Your task to perform on an android device: change your default location settings in chrome Image 0: 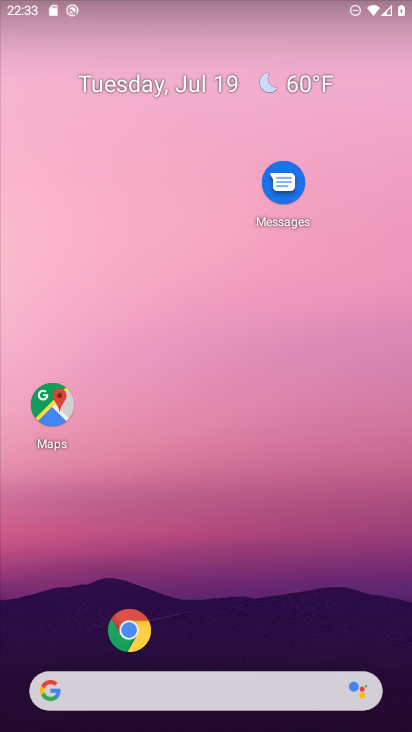
Step 0: drag from (121, 447) to (179, 164)
Your task to perform on an android device: change your default location settings in chrome Image 1: 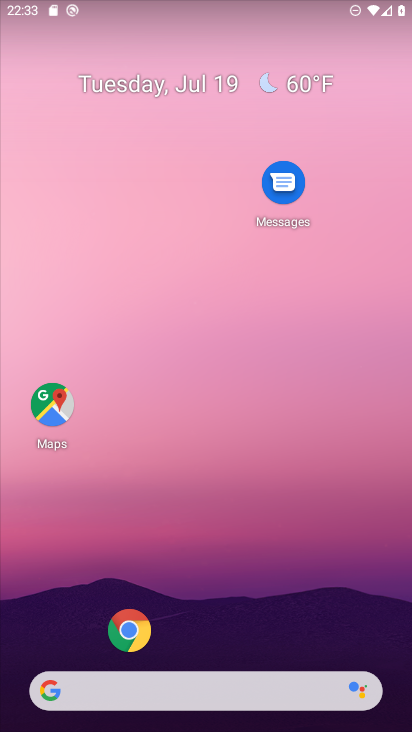
Step 1: click (125, 637)
Your task to perform on an android device: change your default location settings in chrome Image 2: 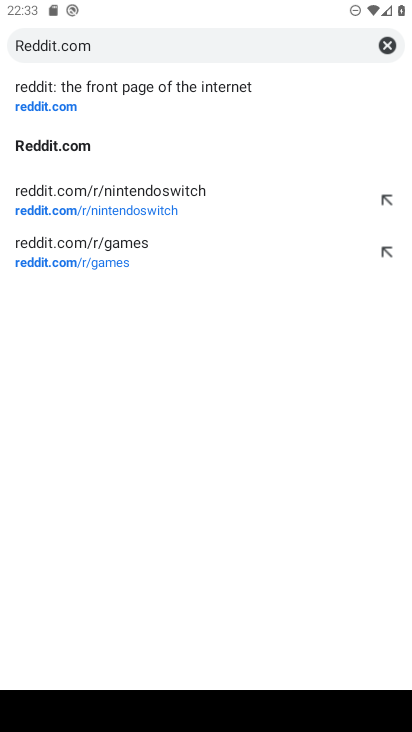
Step 2: click (391, 42)
Your task to perform on an android device: change your default location settings in chrome Image 3: 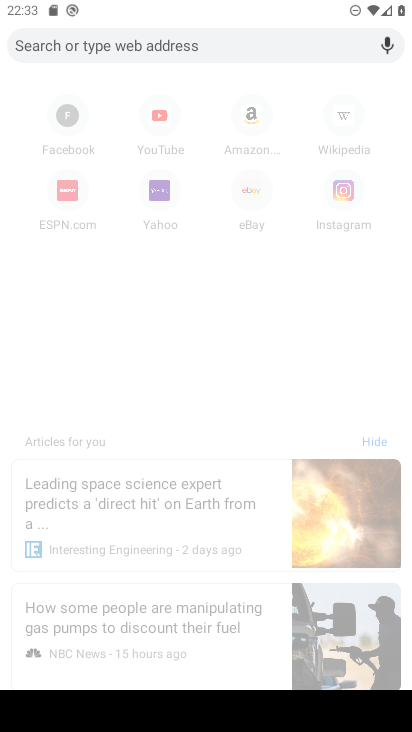
Step 3: click (211, 418)
Your task to perform on an android device: change your default location settings in chrome Image 4: 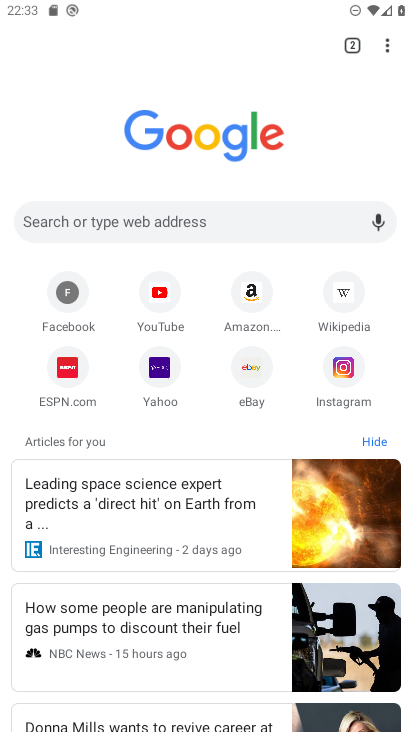
Step 4: click (389, 46)
Your task to perform on an android device: change your default location settings in chrome Image 5: 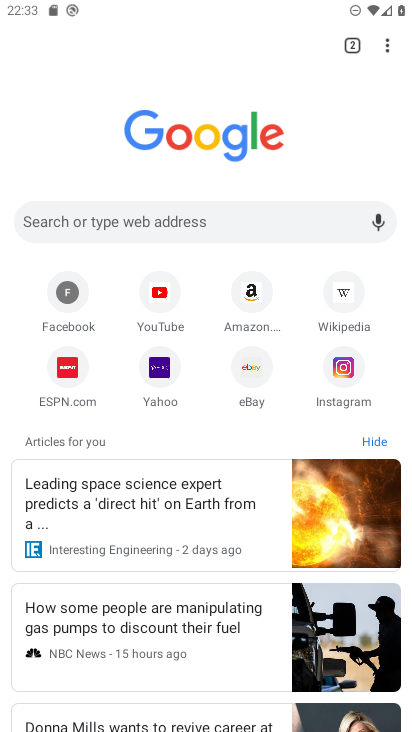
Step 5: click (390, 47)
Your task to perform on an android device: change your default location settings in chrome Image 6: 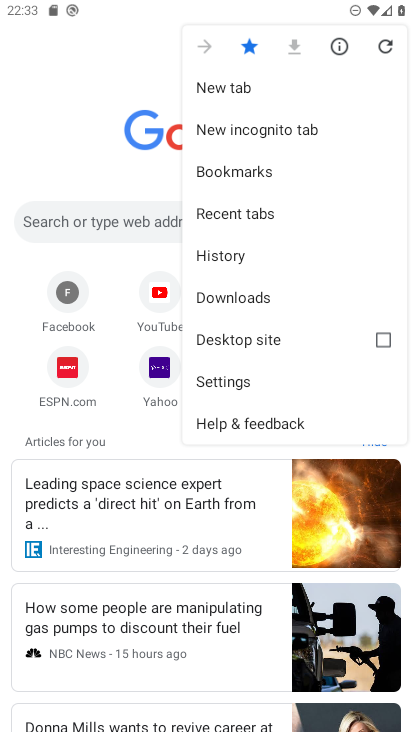
Step 6: click (224, 378)
Your task to perform on an android device: change your default location settings in chrome Image 7: 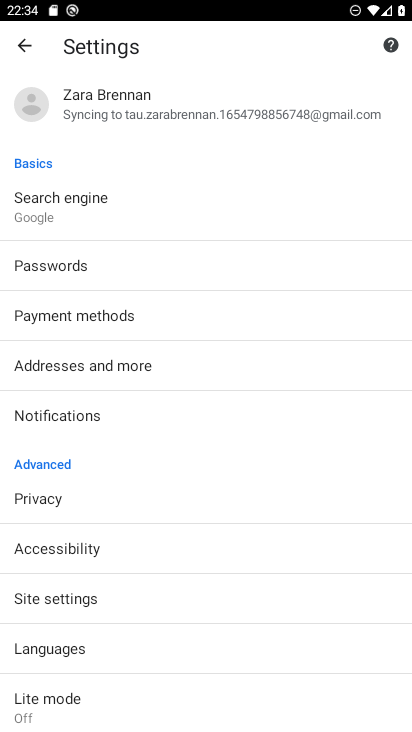
Step 7: click (41, 596)
Your task to perform on an android device: change your default location settings in chrome Image 8: 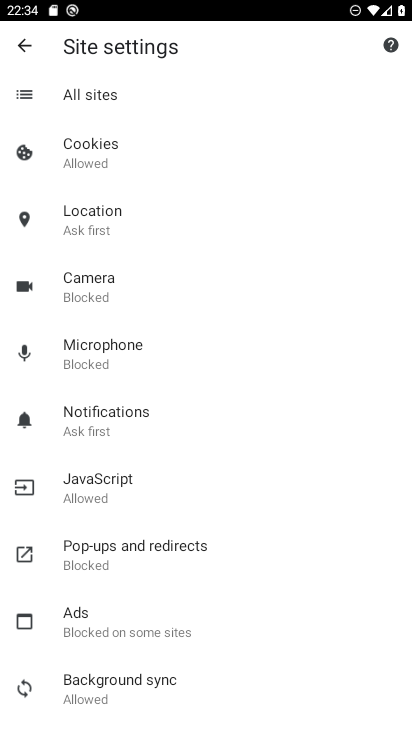
Step 8: click (100, 212)
Your task to perform on an android device: change your default location settings in chrome Image 9: 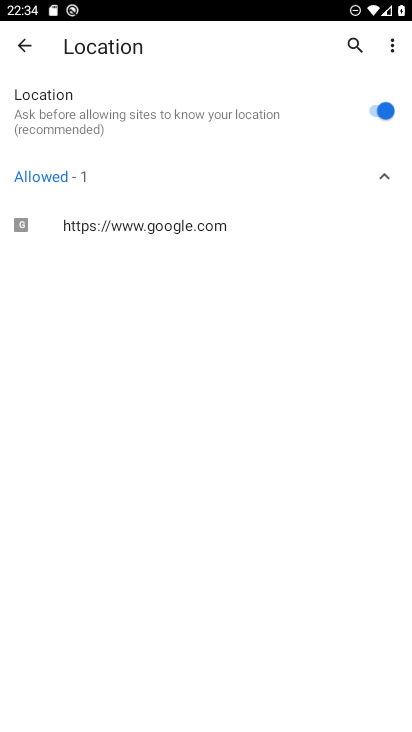
Step 9: task complete